Your task to perform on an android device: What's the weather today? Image 0: 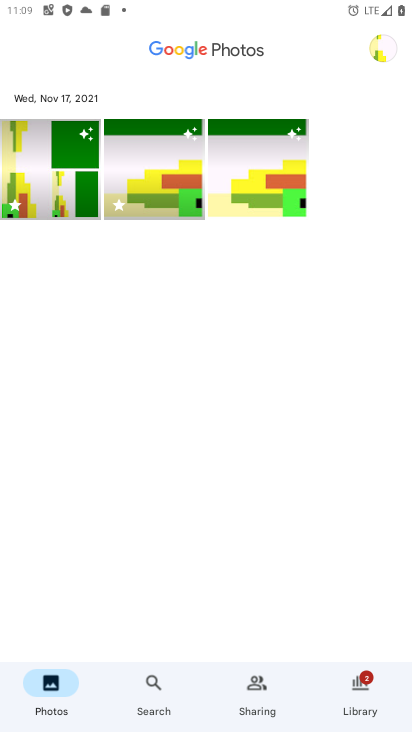
Step 0: press home button
Your task to perform on an android device: What's the weather today? Image 1: 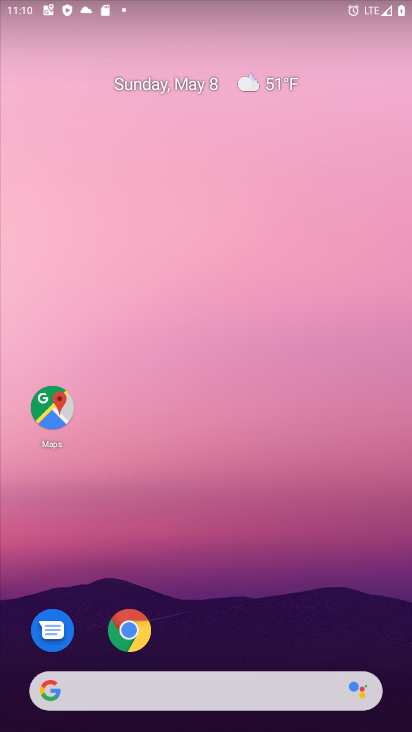
Step 1: click (200, 688)
Your task to perform on an android device: What's the weather today? Image 2: 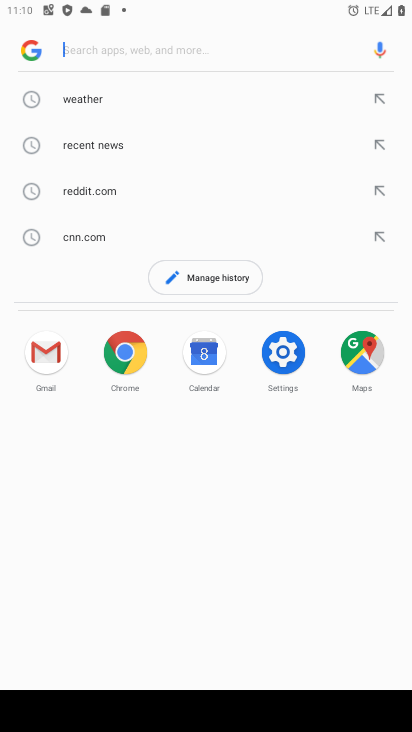
Step 2: click (105, 108)
Your task to perform on an android device: What's the weather today? Image 3: 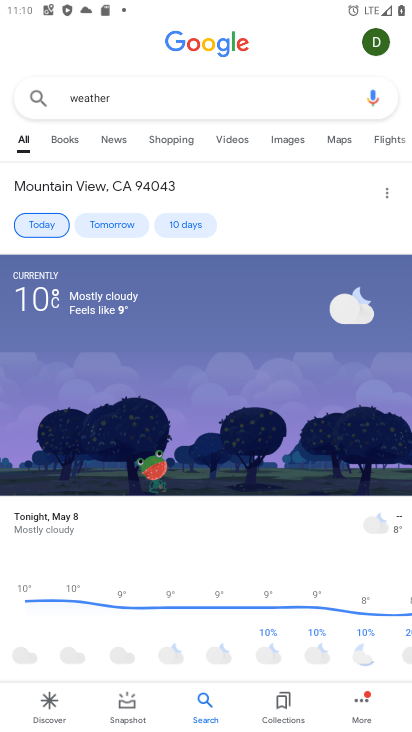
Step 3: task complete